Your task to perform on an android device: stop showing notifications on the lock screen Image 0: 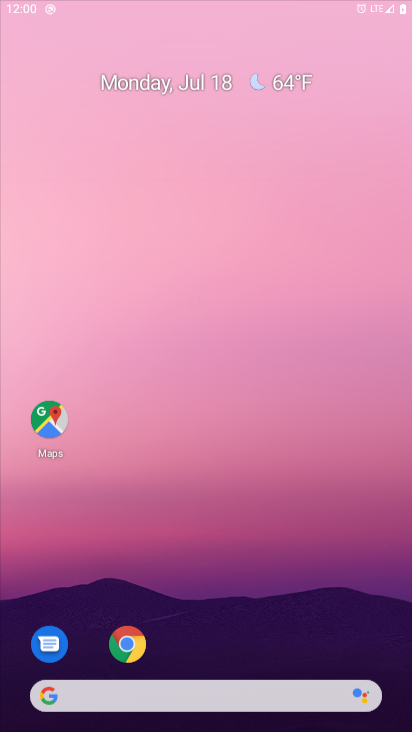
Step 0: press home button
Your task to perform on an android device: stop showing notifications on the lock screen Image 1: 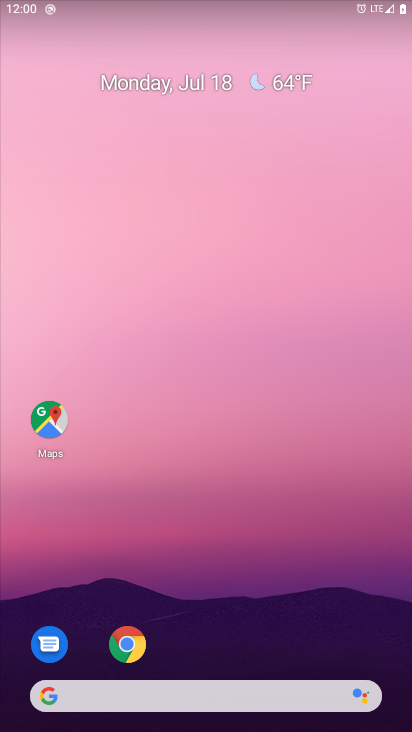
Step 1: drag from (241, 610) to (288, 72)
Your task to perform on an android device: stop showing notifications on the lock screen Image 2: 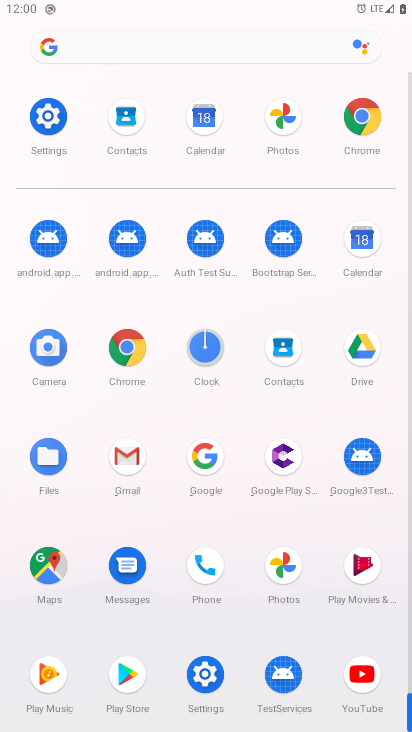
Step 2: click (45, 115)
Your task to perform on an android device: stop showing notifications on the lock screen Image 3: 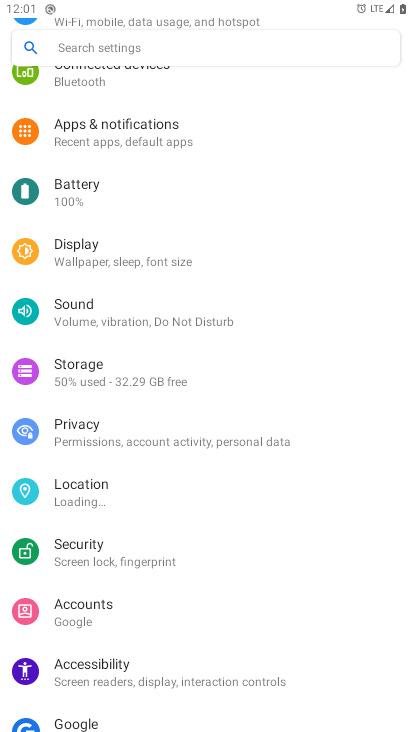
Step 3: click (90, 139)
Your task to perform on an android device: stop showing notifications on the lock screen Image 4: 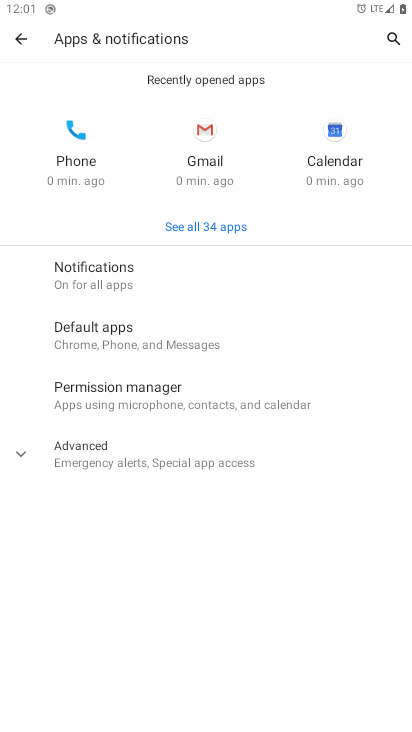
Step 4: click (101, 281)
Your task to perform on an android device: stop showing notifications on the lock screen Image 5: 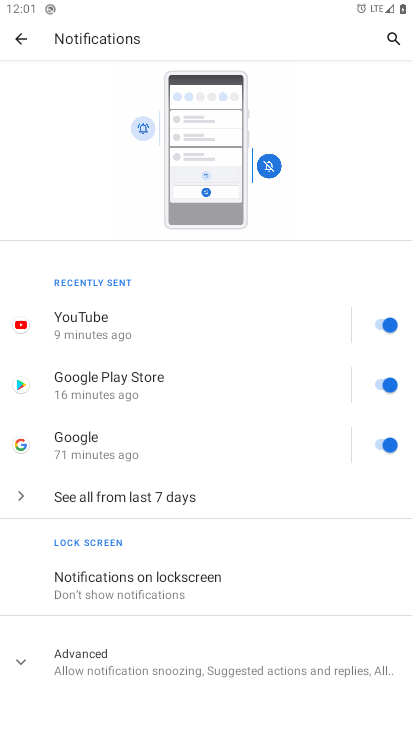
Step 5: click (96, 574)
Your task to perform on an android device: stop showing notifications on the lock screen Image 6: 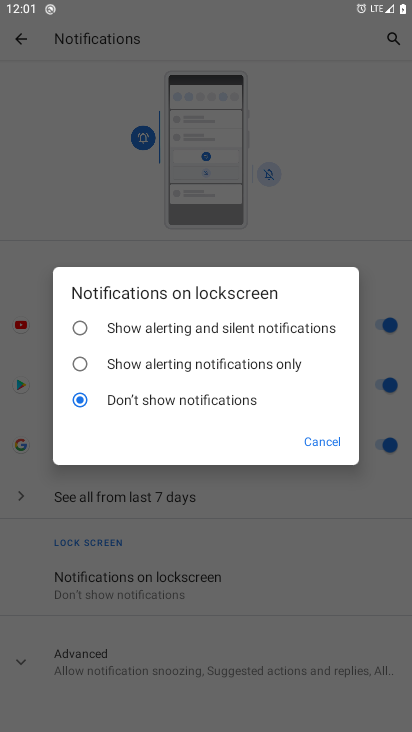
Step 6: click (82, 328)
Your task to perform on an android device: stop showing notifications on the lock screen Image 7: 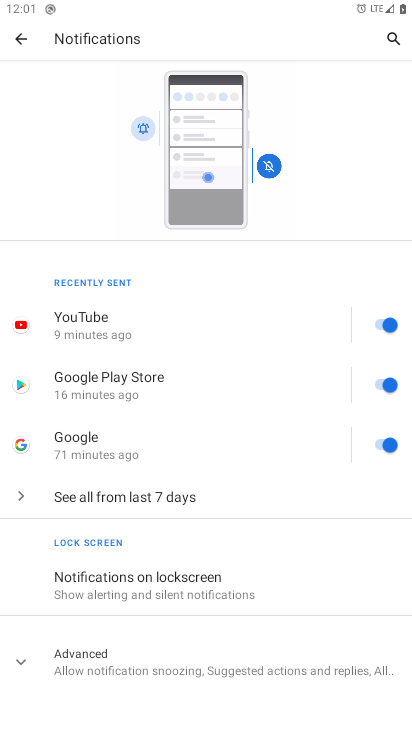
Step 7: task complete